Your task to perform on an android device: What is the recent news? Image 0: 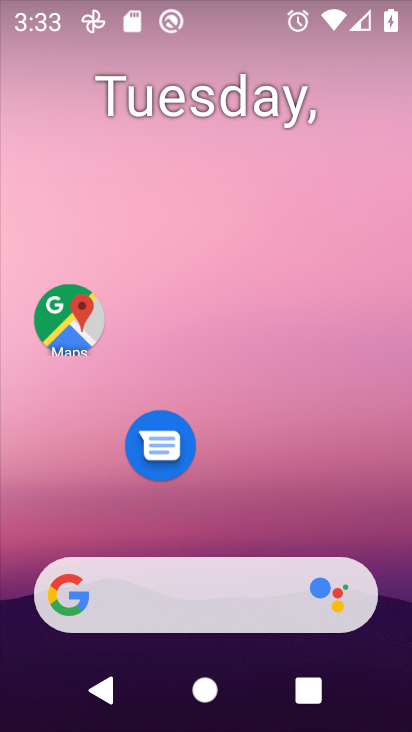
Step 0: click (9, 197)
Your task to perform on an android device: What is the recent news? Image 1: 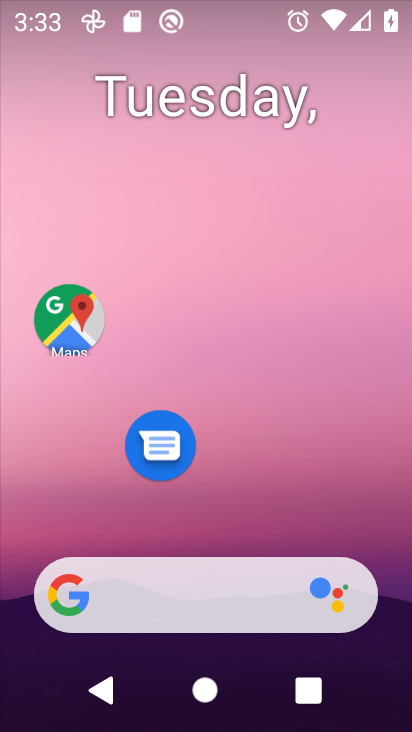
Step 1: task complete